Your task to perform on an android device: What's on my calendar tomorrow? Image 0: 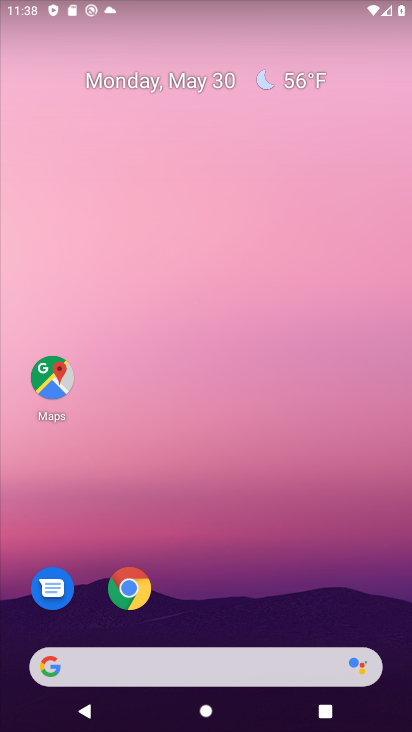
Step 0: drag from (215, 630) to (152, 140)
Your task to perform on an android device: What's on my calendar tomorrow? Image 1: 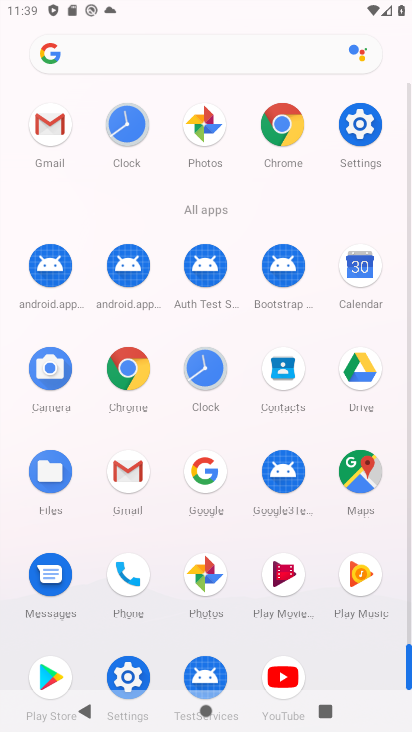
Step 1: click (356, 290)
Your task to perform on an android device: What's on my calendar tomorrow? Image 2: 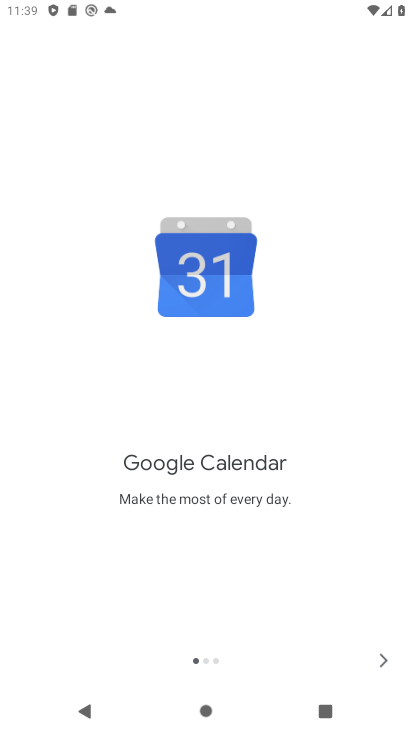
Step 2: click (380, 663)
Your task to perform on an android device: What's on my calendar tomorrow? Image 3: 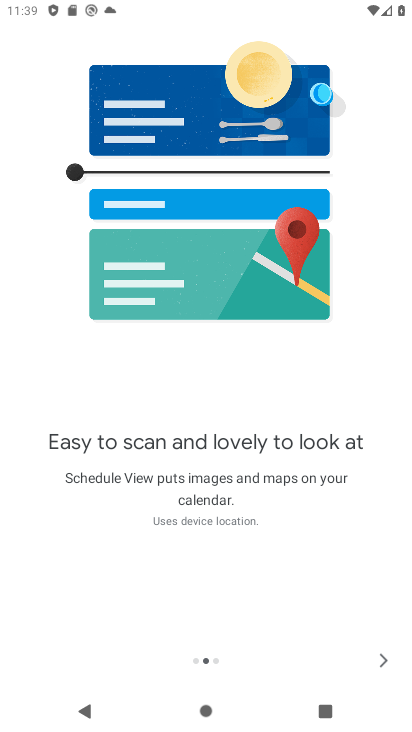
Step 3: click (380, 663)
Your task to perform on an android device: What's on my calendar tomorrow? Image 4: 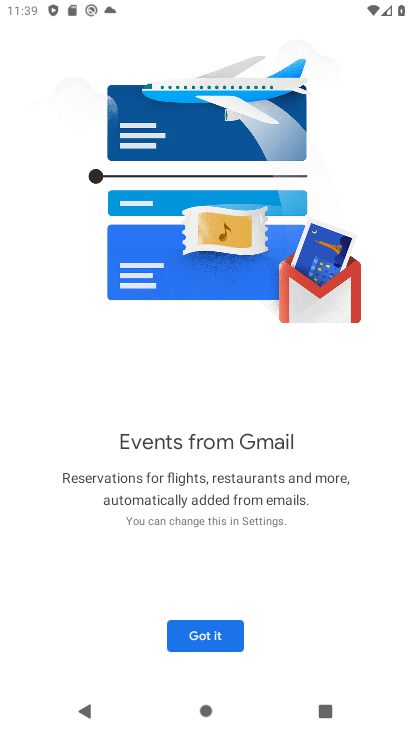
Step 4: click (222, 631)
Your task to perform on an android device: What's on my calendar tomorrow? Image 5: 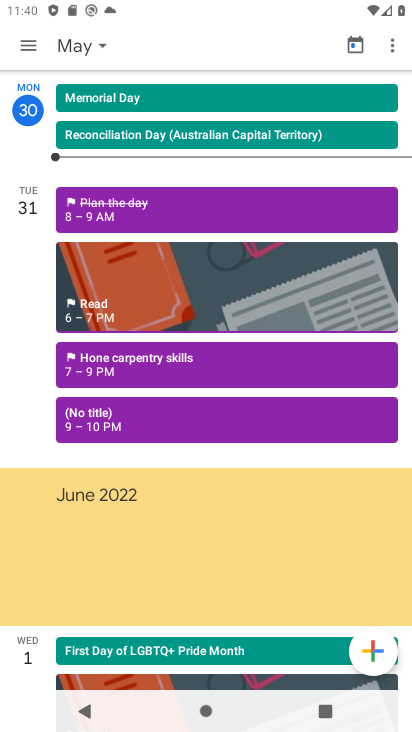
Step 5: task complete